Your task to perform on an android device: toggle notifications settings in the gmail app Image 0: 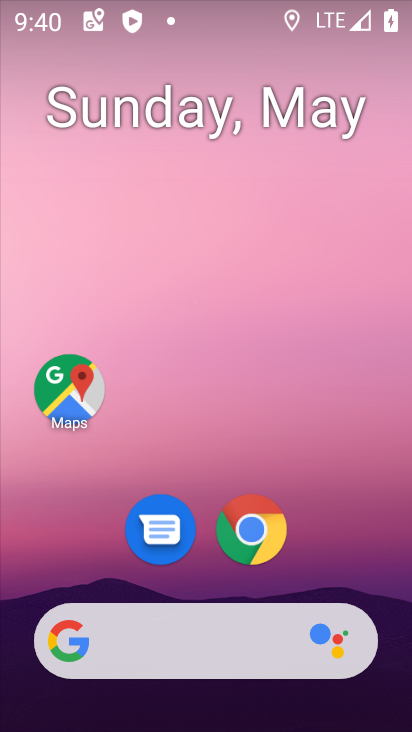
Step 0: drag from (332, 555) to (329, 255)
Your task to perform on an android device: toggle notifications settings in the gmail app Image 1: 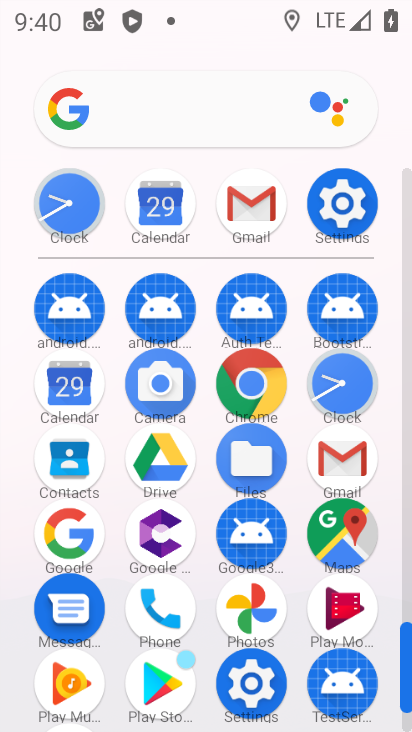
Step 1: click (248, 227)
Your task to perform on an android device: toggle notifications settings in the gmail app Image 2: 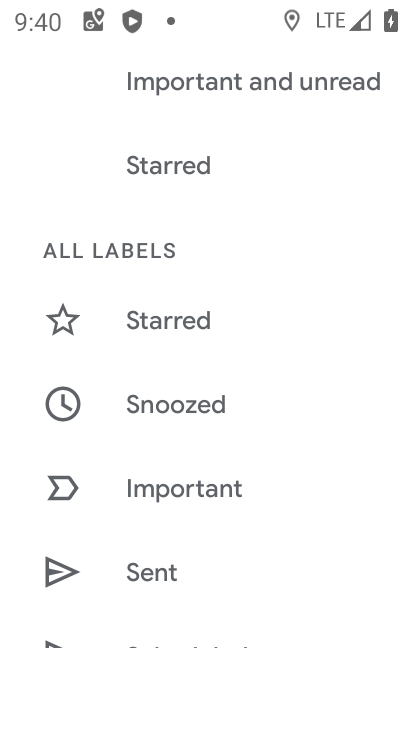
Step 2: drag from (180, 535) to (184, 115)
Your task to perform on an android device: toggle notifications settings in the gmail app Image 3: 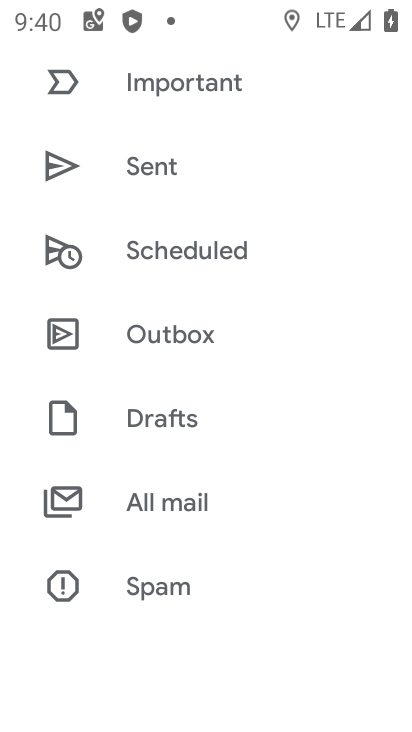
Step 3: click (216, 490)
Your task to perform on an android device: toggle notifications settings in the gmail app Image 4: 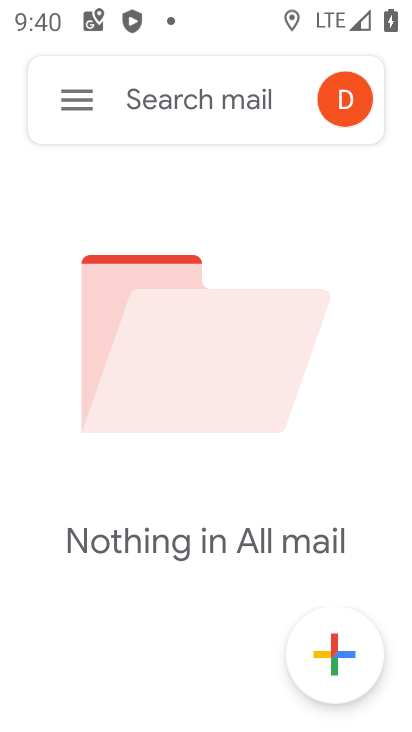
Step 4: task complete